Your task to perform on an android device: Search for the best books on Goodreads Image 0: 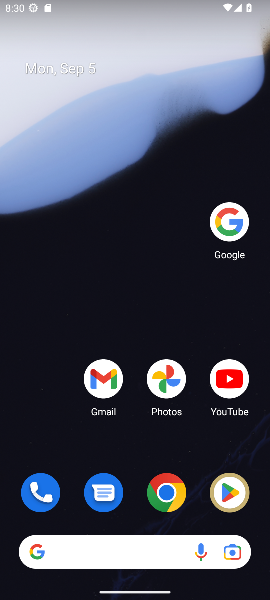
Step 0: click (224, 216)
Your task to perform on an android device: Search for the best books on Goodreads Image 1: 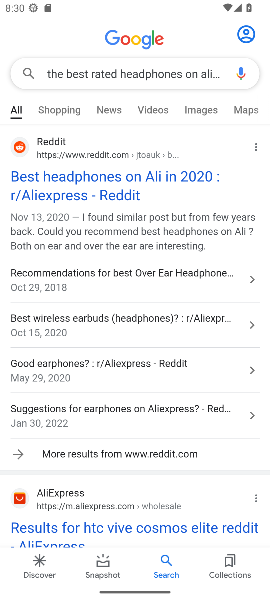
Step 1: click (152, 71)
Your task to perform on an android device: Search for the best books on Goodreads Image 2: 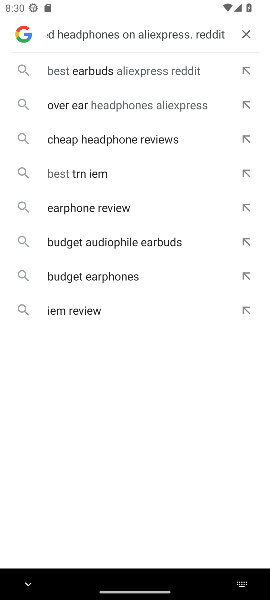
Step 2: click (241, 33)
Your task to perform on an android device: Search for the best books on Goodreads Image 3: 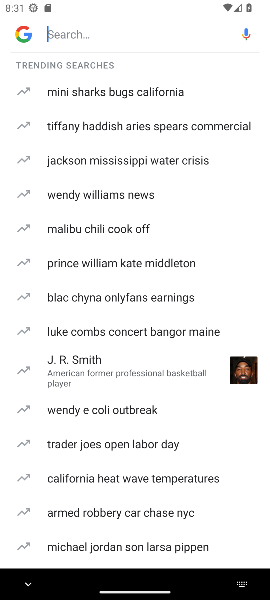
Step 3: click (181, 32)
Your task to perform on an android device: Search for the best books on Goodreads Image 4: 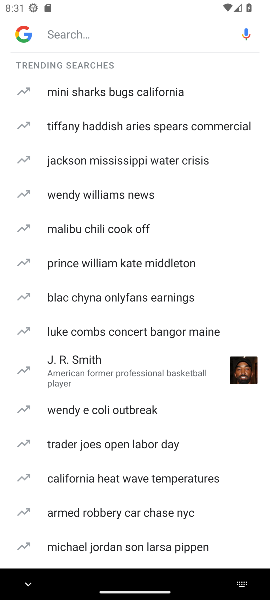
Step 4: type "the best books on Goodreads"
Your task to perform on an android device: Search for the best books on Goodreads Image 5: 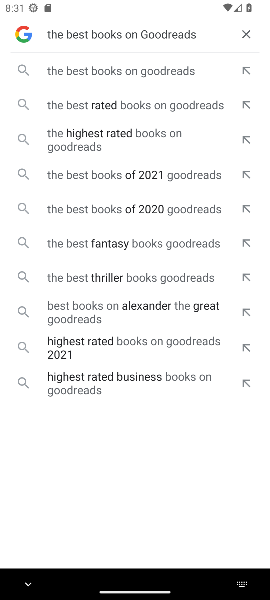
Step 5: click (114, 71)
Your task to perform on an android device: Search for the best books on Goodreads Image 6: 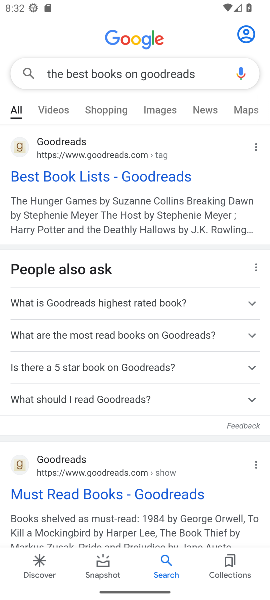
Step 6: click (141, 177)
Your task to perform on an android device: Search for the best books on Goodreads Image 7: 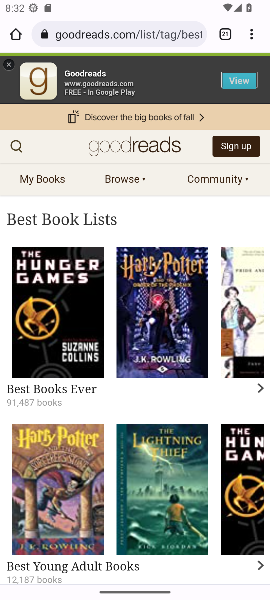
Step 7: task complete